Your task to perform on an android device: Open display settings Image 0: 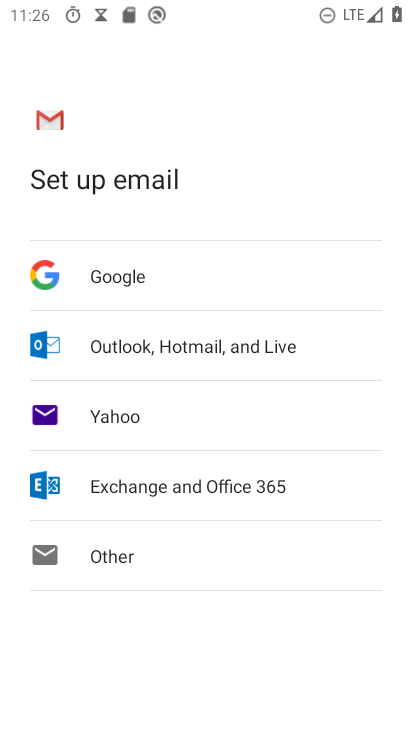
Step 0: press home button
Your task to perform on an android device: Open display settings Image 1: 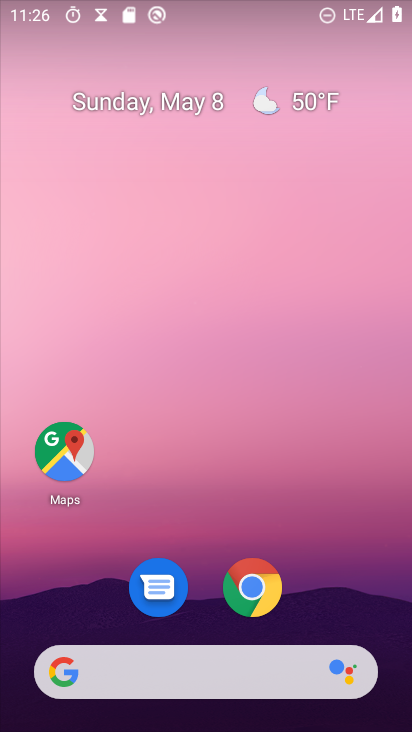
Step 1: drag from (233, 486) to (204, 124)
Your task to perform on an android device: Open display settings Image 2: 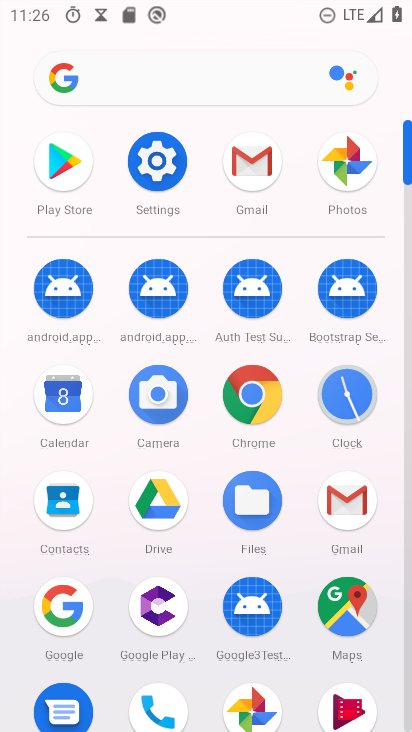
Step 2: click (158, 159)
Your task to perform on an android device: Open display settings Image 3: 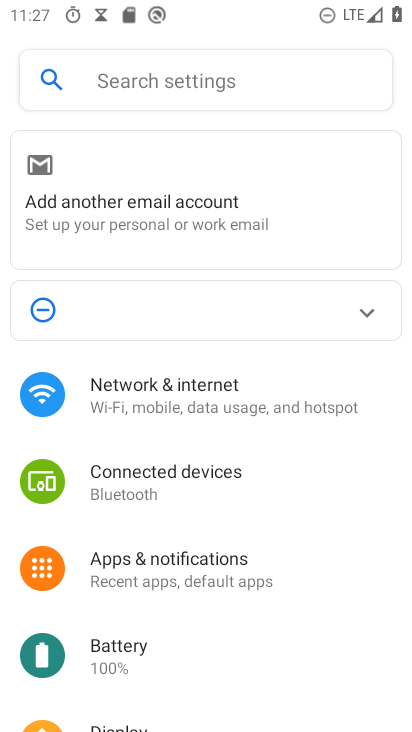
Step 3: drag from (149, 650) to (163, 303)
Your task to perform on an android device: Open display settings Image 4: 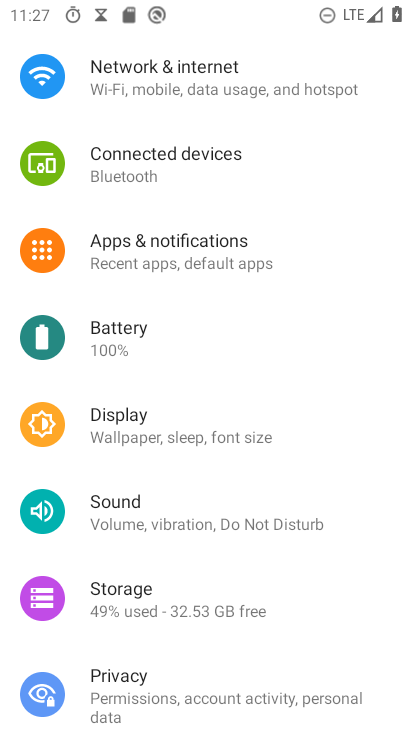
Step 4: click (148, 427)
Your task to perform on an android device: Open display settings Image 5: 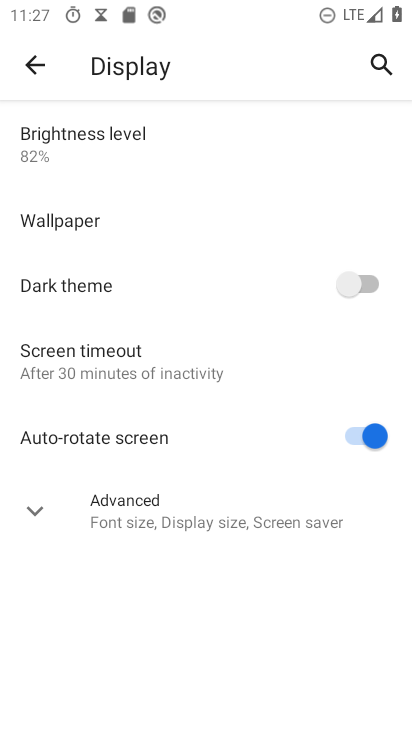
Step 5: click (158, 511)
Your task to perform on an android device: Open display settings Image 6: 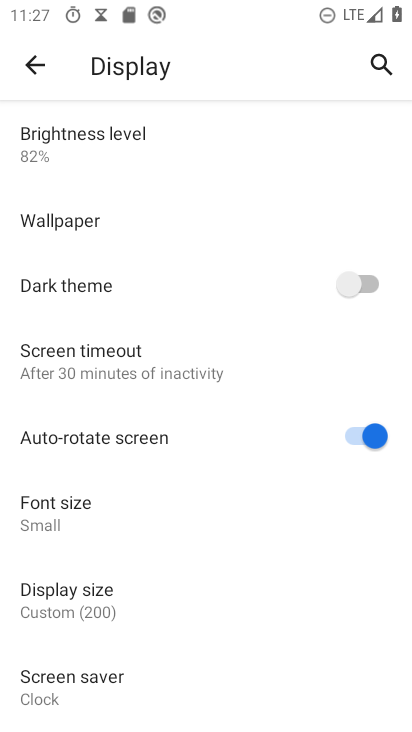
Step 6: task complete